Your task to perform on an android device: Go to notification settings Image 0: 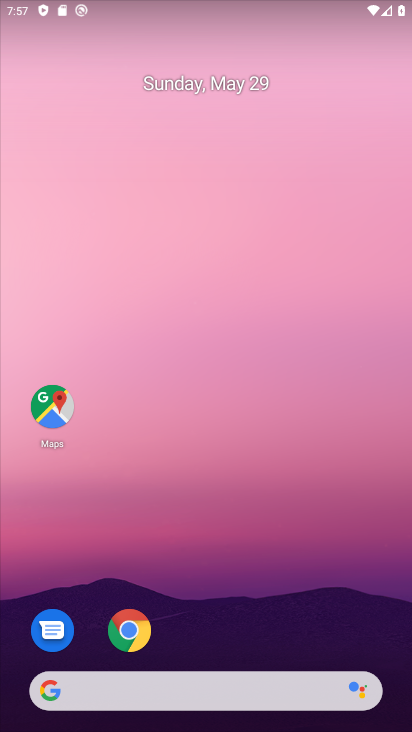
Step 0: drag from (211, 670) to (214, 156)
Your task to perform on an android device: Go to notification settings Image 1: 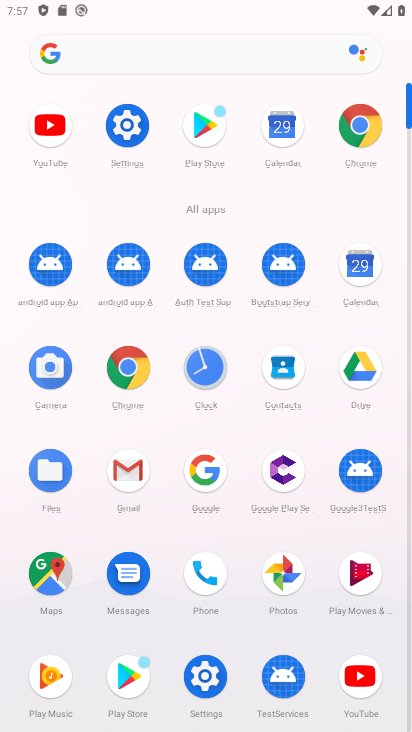
Step 1: click (126, 132)
Your task to perform on an android device: Go to notification settings Image 2: 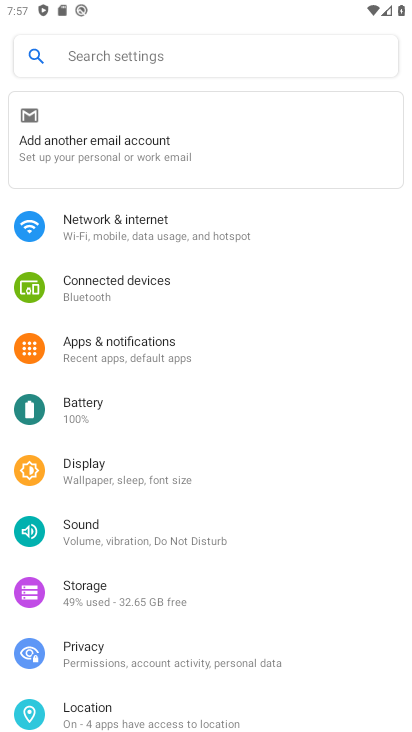
Step 2: click (119, 349)
Your task to perform on an android device: Go to notification settings Image 3: 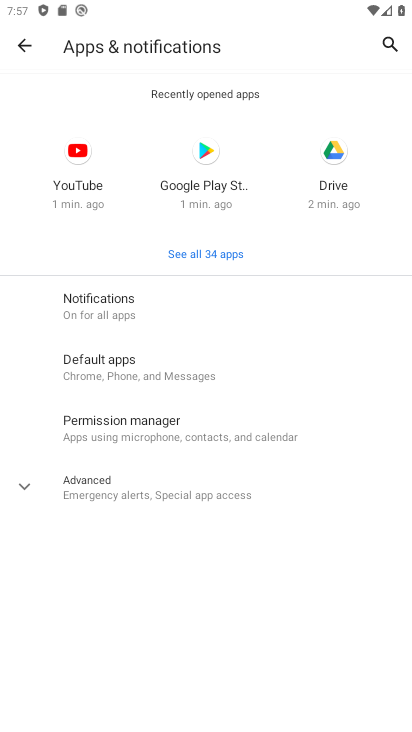
Step 3: click (71, 296)
Your task to perform on an android device: Go to notification settings Image 4: 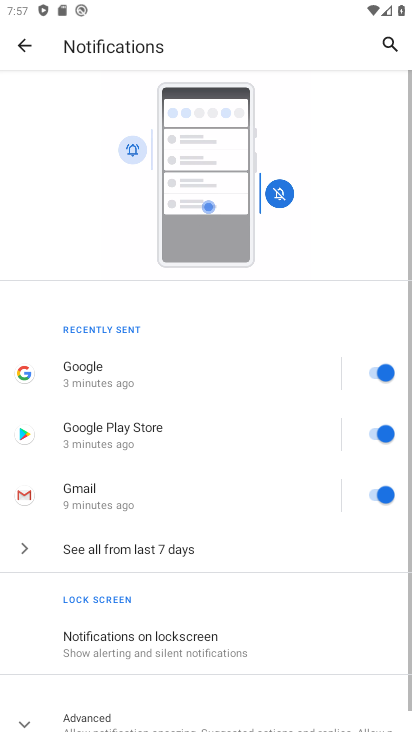
Step 4: task complete